Your task to perform on an android device: toggle translation in the chrome app Image 0: 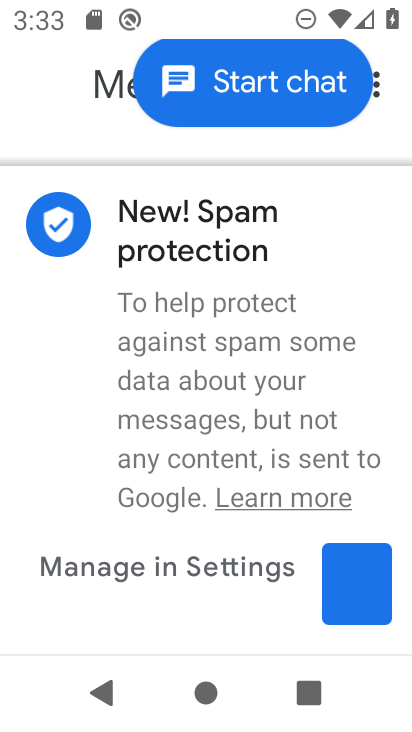
Step 0: press home button
Your task to perform on an android device: toggle translation in the chrome app Image 1: 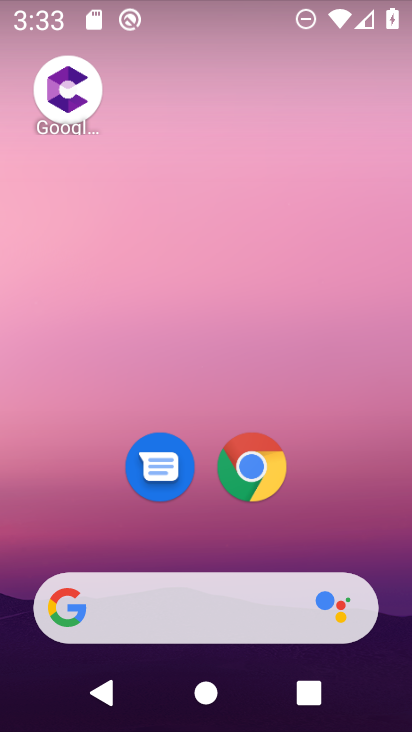
Step 1: click (254, 482)
Your task to perform on an android device: toggle translation in the chrome app Image 2: 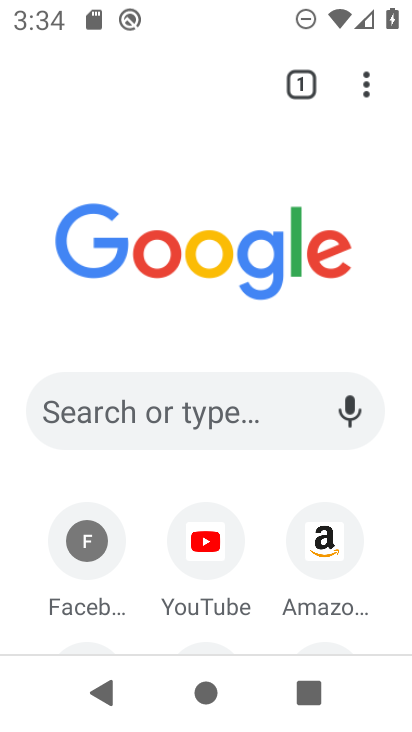
Step 2: click (357, 101)
Your task to perform on an android device: toggle translation in the chrome app Image 3: 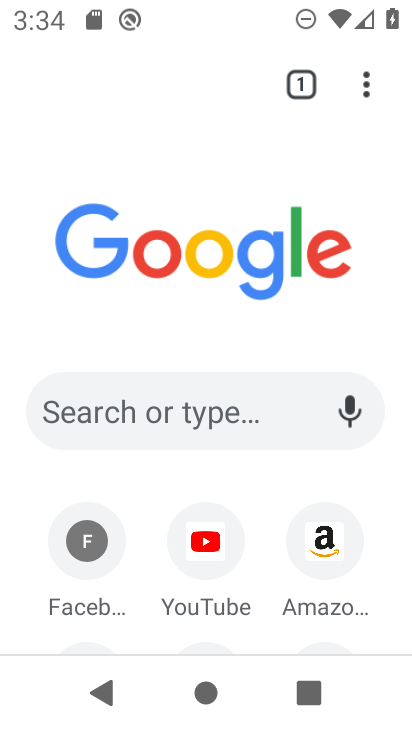
Step 3: drag from (373, 80) to (168, 527)
Your task to perform on an android device: toggle translation in the chrome app Image 4: 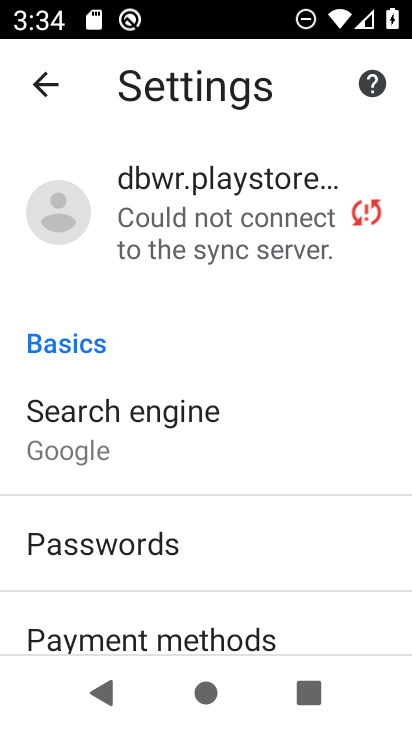
Step 4: drag from (134, 567) to (113, 189)
Your task to perform on an android device: toggle translation in the chrome app Image 5: 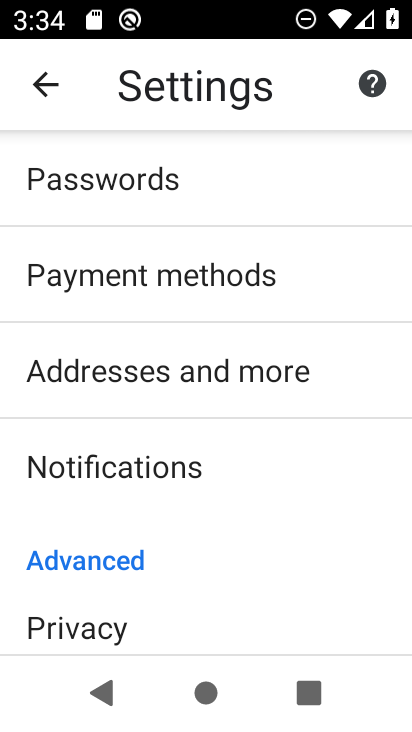
Step 5: drag from (89, 569) to (75, 161)
Your task to perform on an android device: toggle translation in the chrome app Image 6: 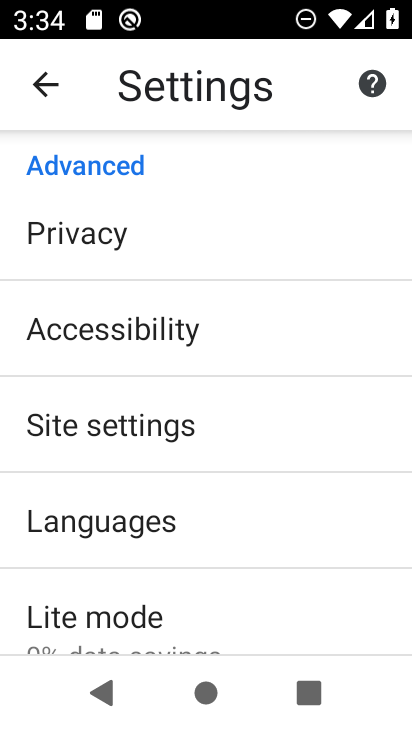
Step 6: click (94, 499)
Your task to perform on an android device: toggle translation in the chrome app Image 7: 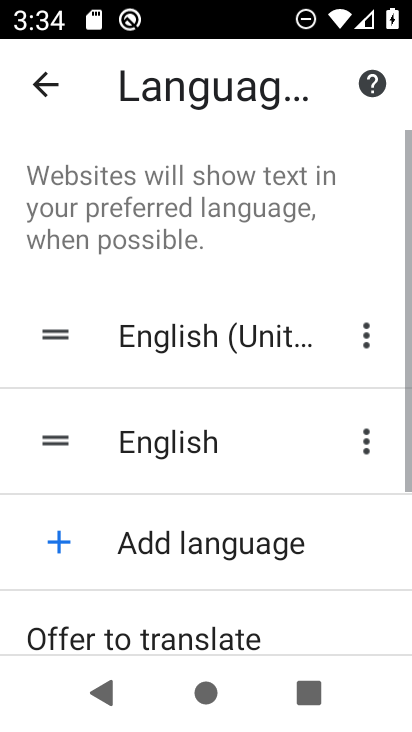
Step 7: drag from (252, 626) to (195, 204)
Your task to perform on an android device: toggle translation in the chrome app Image 8: 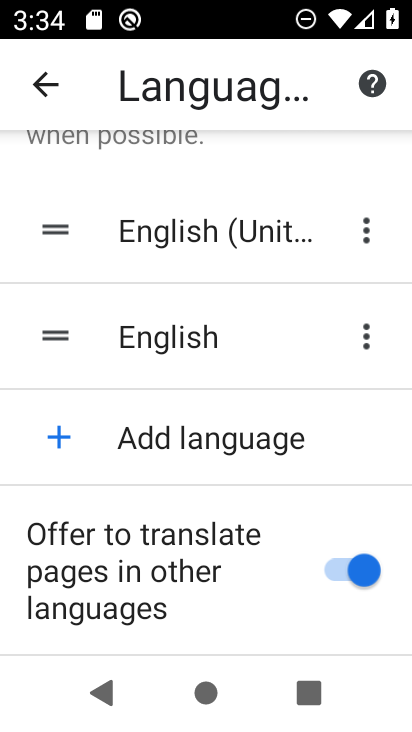
Step 8: click (351, 566)
Your task to perform on an android device: toggle translation in the chrome app Image 9: 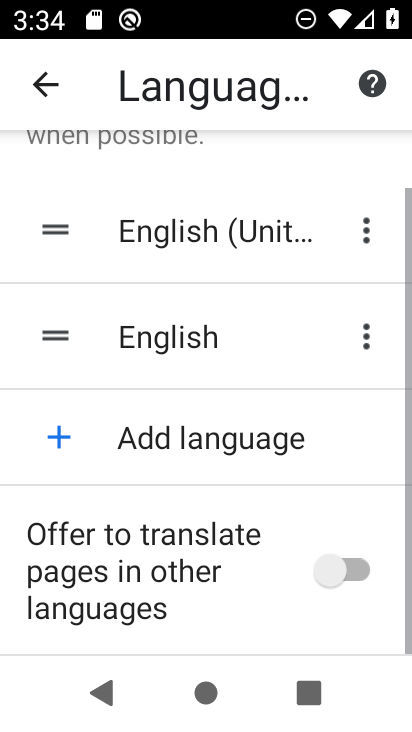
Step 9: task complete